Your task to perform on an android device: clear all cookies in the chrome app Image 0: 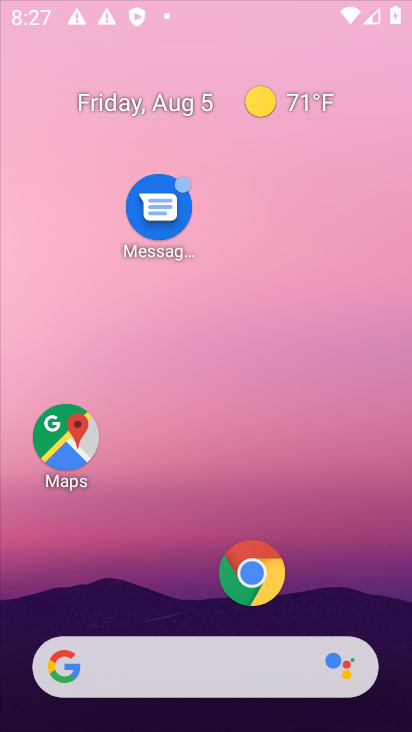
Step 0: press home button
Your task to perform on an android device: clear all cookies in the chrome app Image 1: 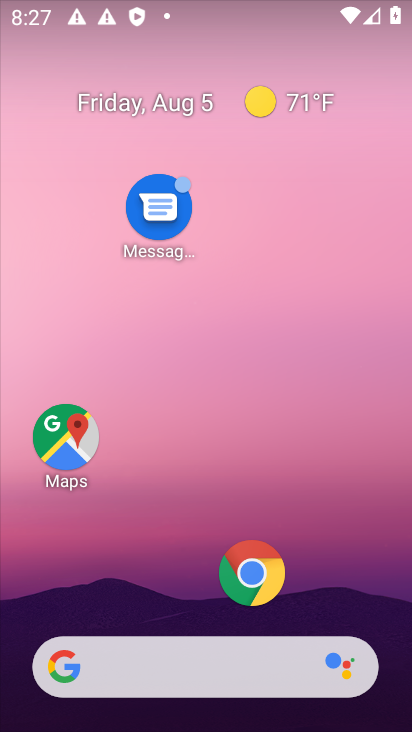
Step 1: click (248, 565)
Your task to perform on an android device: clear all cookies in the chrome app Image 2: 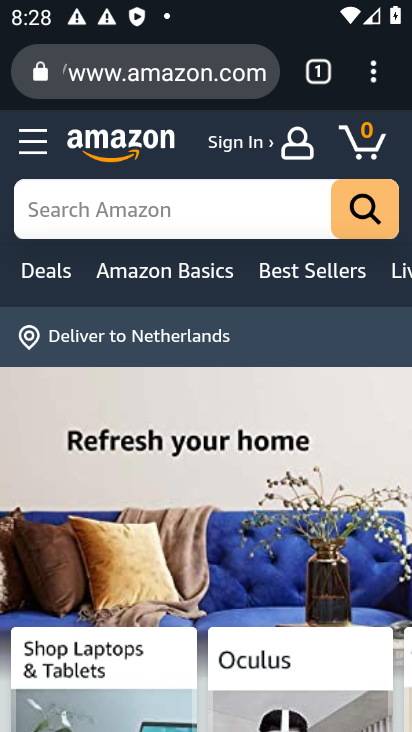
Step 2: click (374, 71)
Your task to perform on an android device: clear all cookies in the chrome app Image 3: 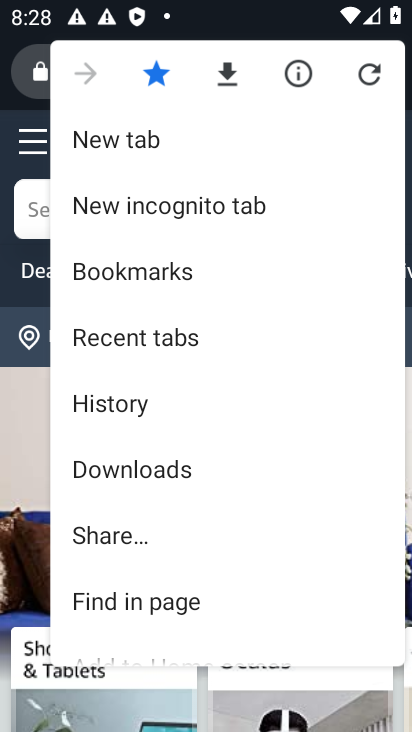
Step 3: click (158, 399)
Your task to perform on an android device: clear all cookies in the chrome app Image 4: 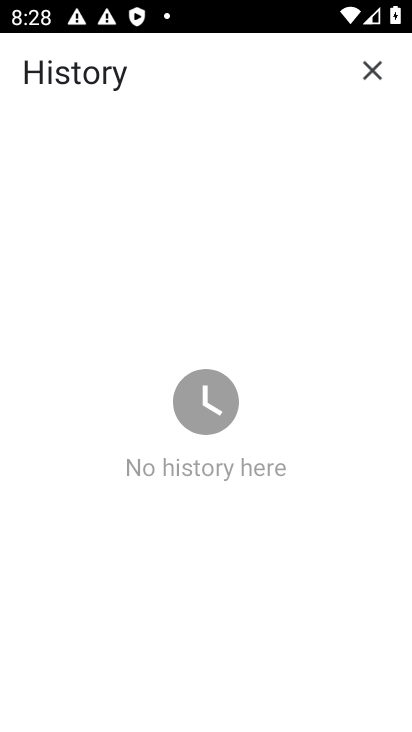
Step 4: task complete